Your task to perform on an android device: Open Youtube and go to the subscriptions tab Image 0: 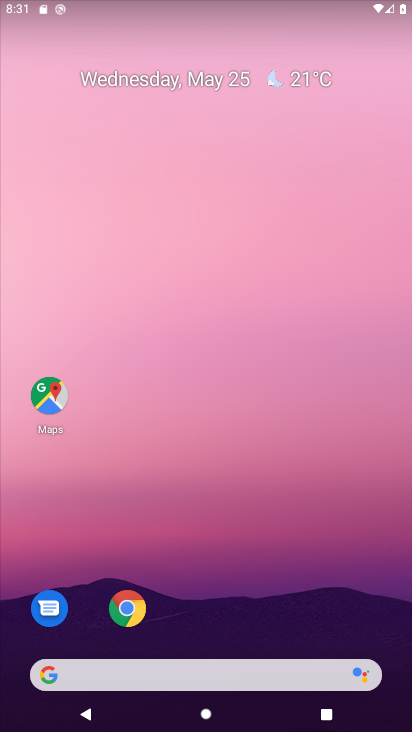
Step 0: drag from (222, 726) to (232, 63)
Your task to perform on an android device: Open Youtube and go to the subscriptions tab Image 1: 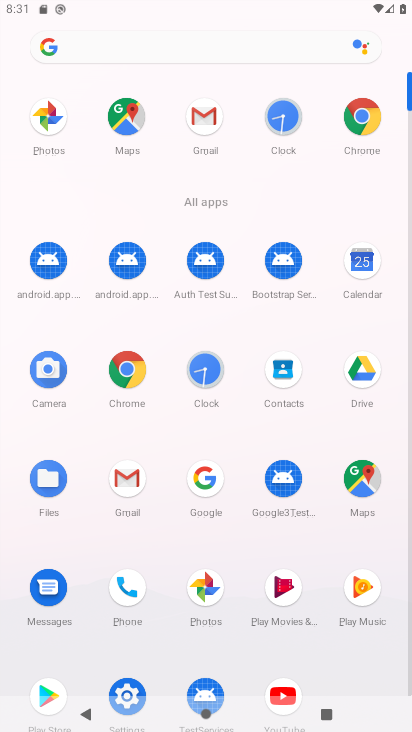
Step 1: click (284, 696)
Your task to perform on an android device: Open Youtube and go to the subscriptions tab Image 2: 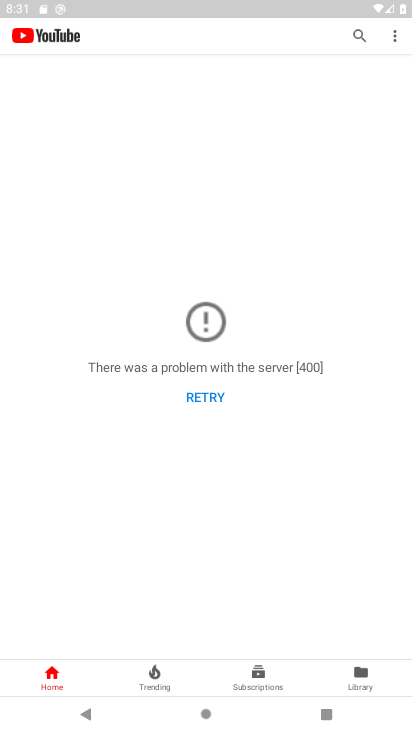
Step 2: click (282, 699)
Your task to perform on an android device: Open Youtube and go to the subscriptions tab Image 3: 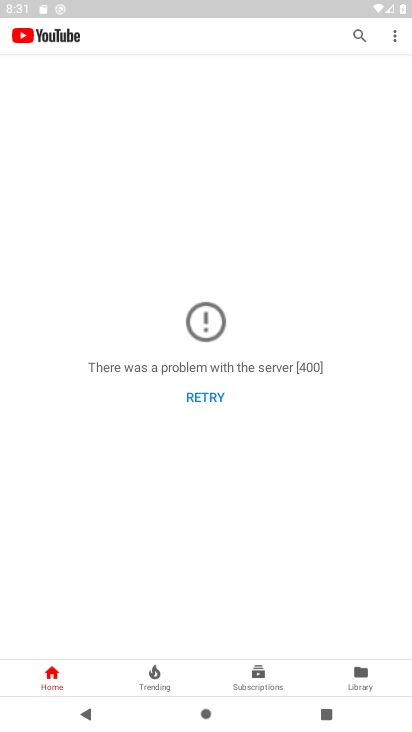
Step 3: click (265, 673)
Your task to perform on an android device: Open Youtube and go to the subscriptions tab Image 4: 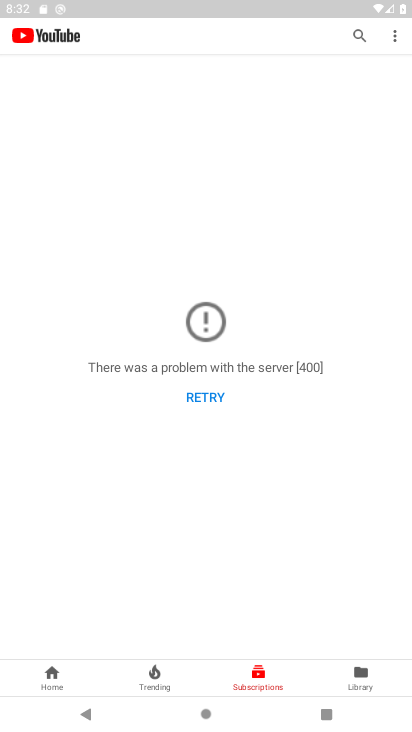
Step 4: task complete